Your task to perform on an android device: Go to location settings Image 0: 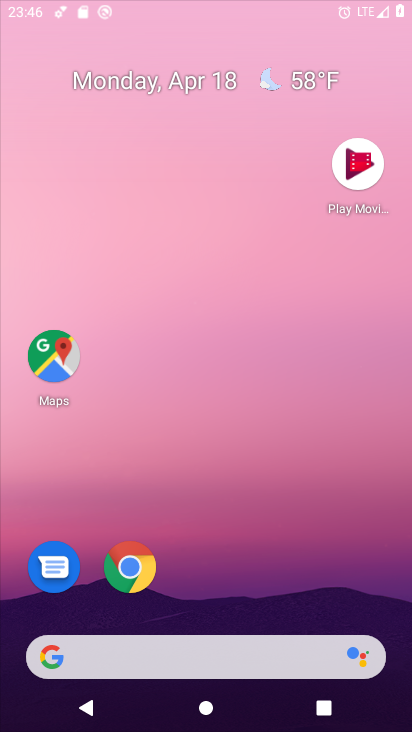
Step 0: click (286, 156)
Your task to perform on an android device: Go to location settings Image 1: 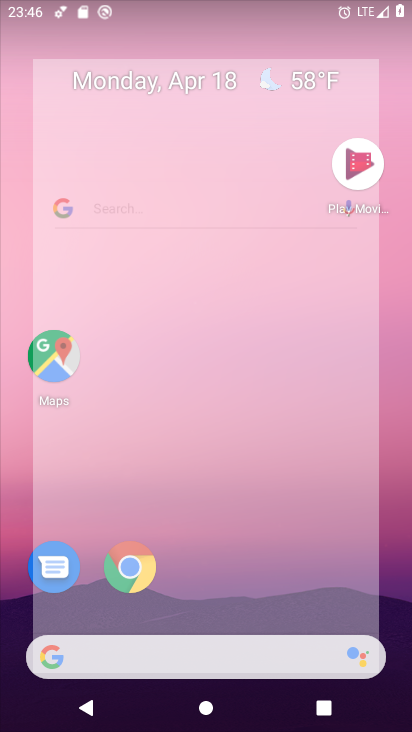
Step 1: drag from (219, 419) to (263, 85)
Your task to perform on an android device: Go to location settings Image 2: 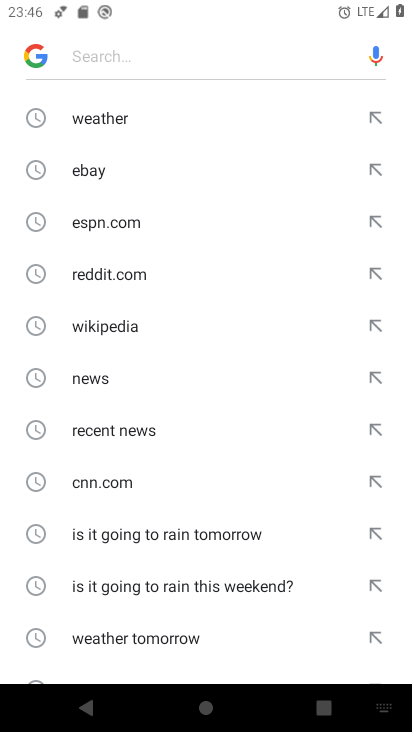
Step 2: press back button
Your task to perform on an android device: Go to location settings Image 3: 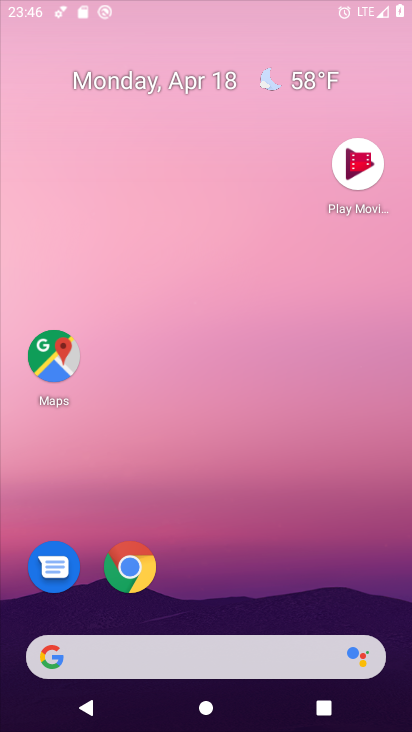
Step 3: press back button
Your task to perform on an android device: Go to location settings Image 4: 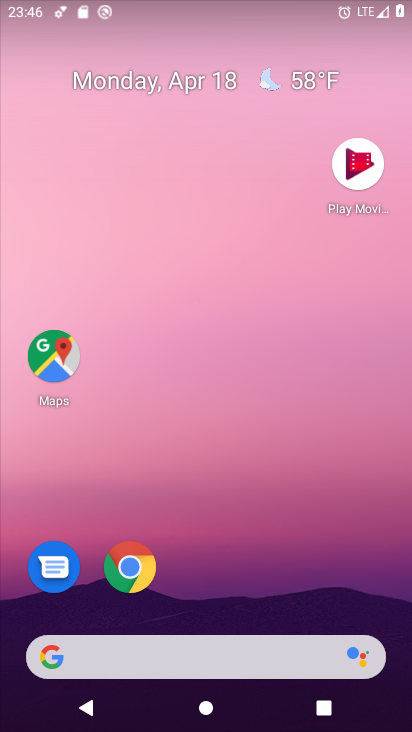
Step 4: drag from (209, 543) to (263, 65)
Your task to perform on an android device: Go to location settings Image 5: 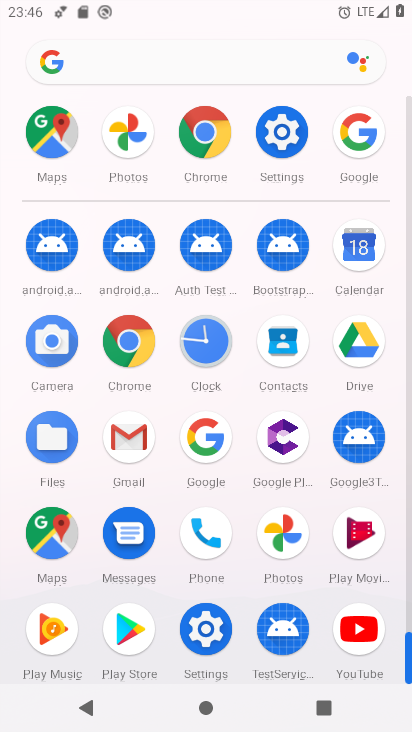
Step 5: click (283, 130)
Your task to perform on an android device: Go to location settings Image 6: 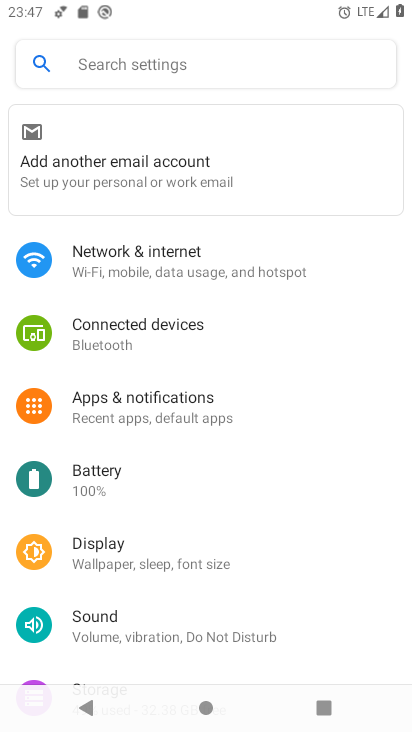
Step 6: drag from (208, 617) to (205, 88)
Your task to perform on an android device: Go to location settings Image 7: 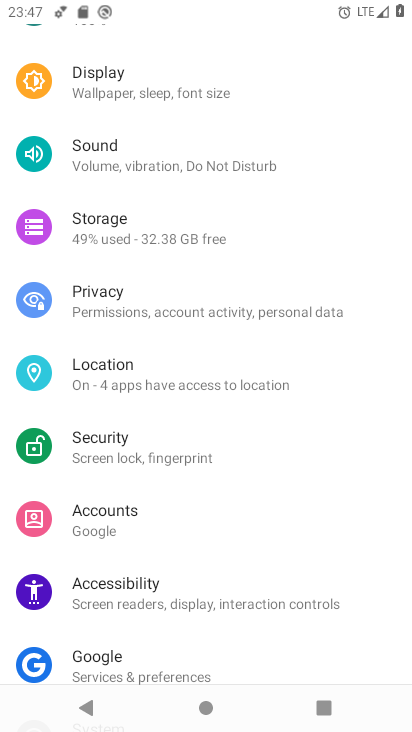
Step 7: drag from (190, 646) to (290, 35)
Your task to perform on an android device: Go to location settings Image 8: 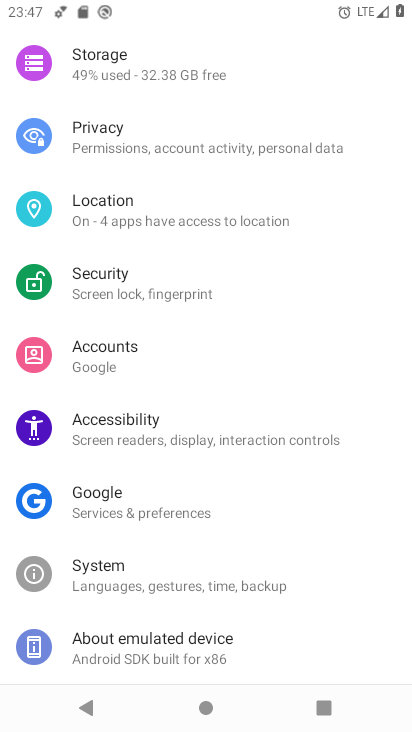
Step 8: click (119, 204)
Your task to perform on an android device: Go to location settings Image 9: 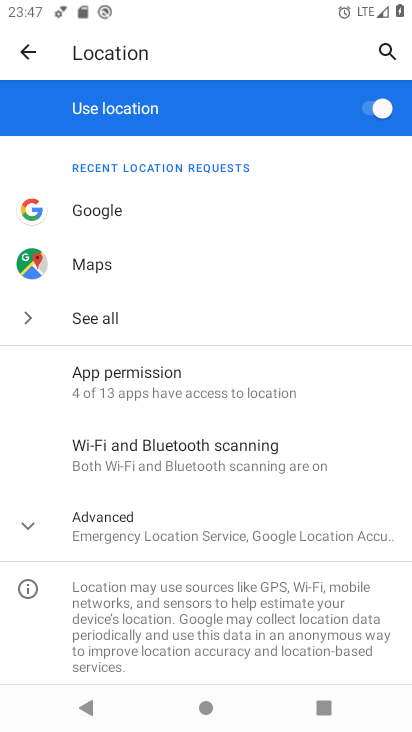
Step 9: click (213, 522)
Your task to perform on an android device: Go to location settings Image 10: 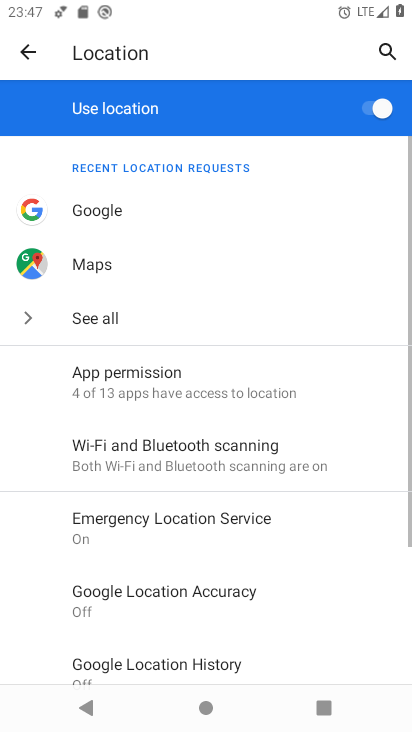
Step 10: click (322, 248)
Your task to perform on an android device: Go to location settings Image 11: 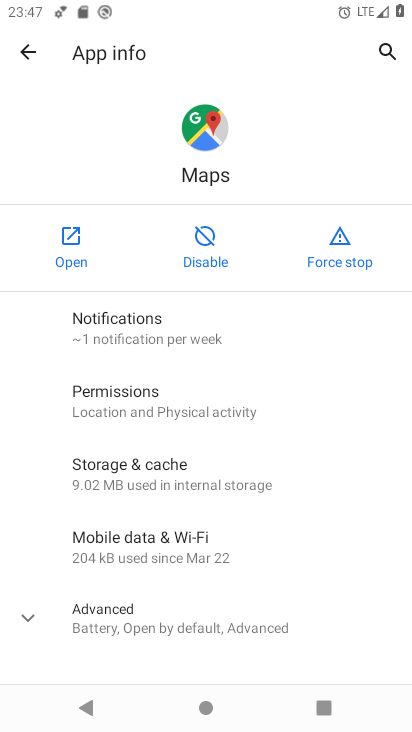
Step 11: click (31, 48)
Your task to perform on an android device: Go to location settings Image 12: 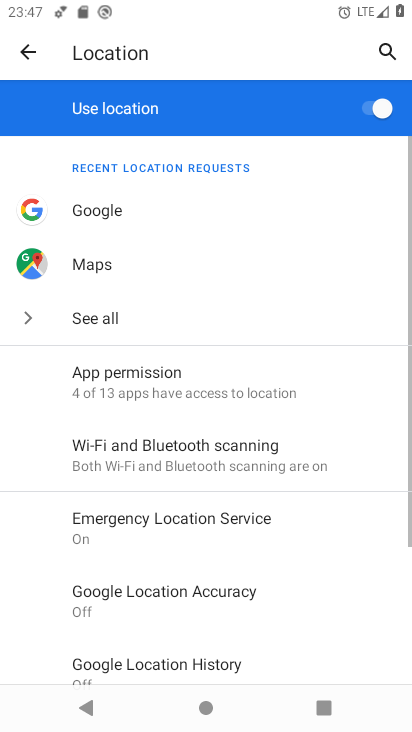
Step 12: task complete